Your task to perform on an android device: Open location settings Image 0: 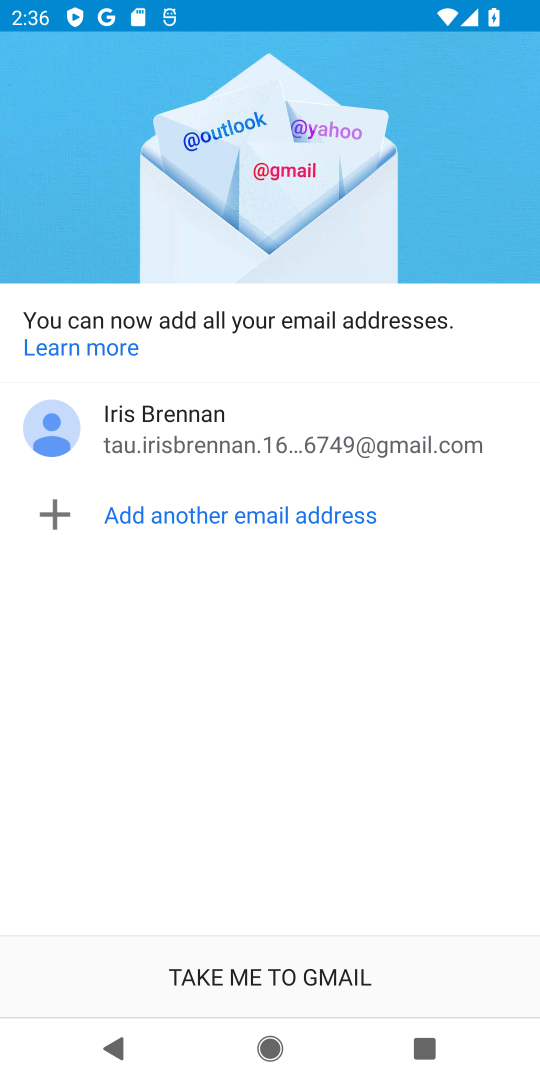
Step 0: press home button
Your task to perform on an android device: Open location settings Image 1: 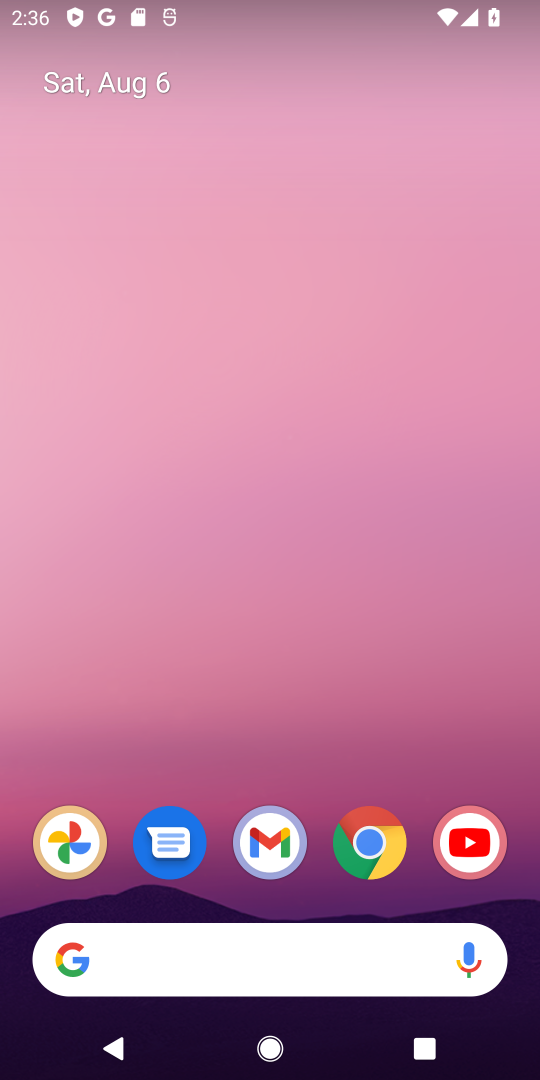
Step 1: drag from (495, 956) to (398, 39)
Your task to perform on an android device: Open location settings Image 2: 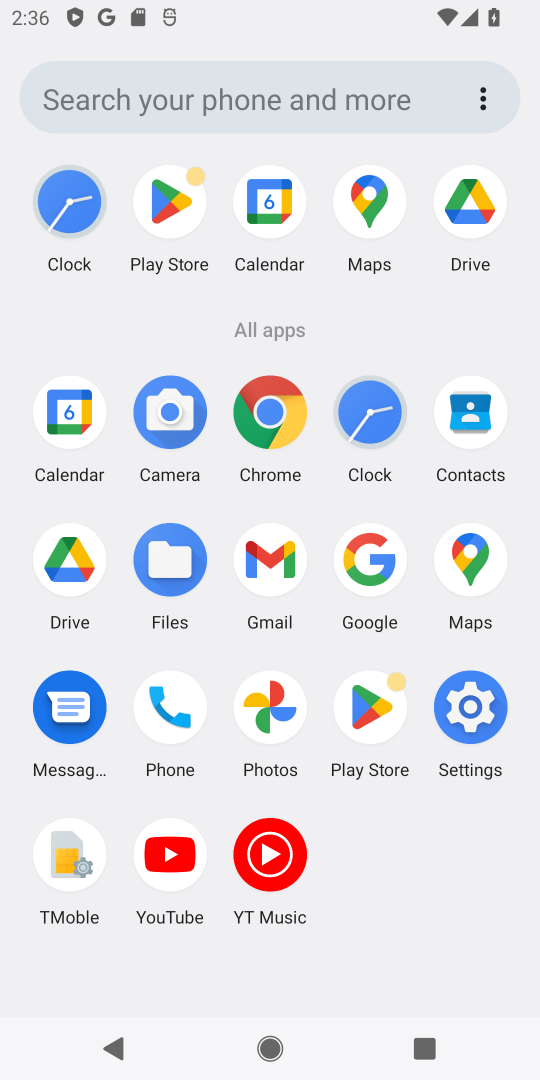
Step 2: click (473, 699)
Your task to perform on an android device: Open location settings Image 3: 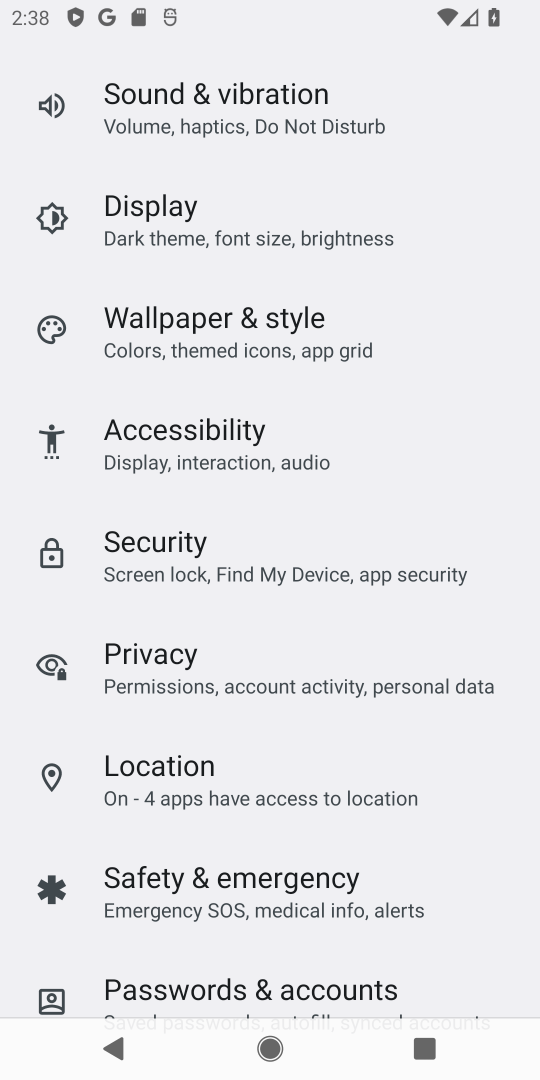
Step 3: click (150, 763)
Your task to perform on an android device: Open location settings Image 4: 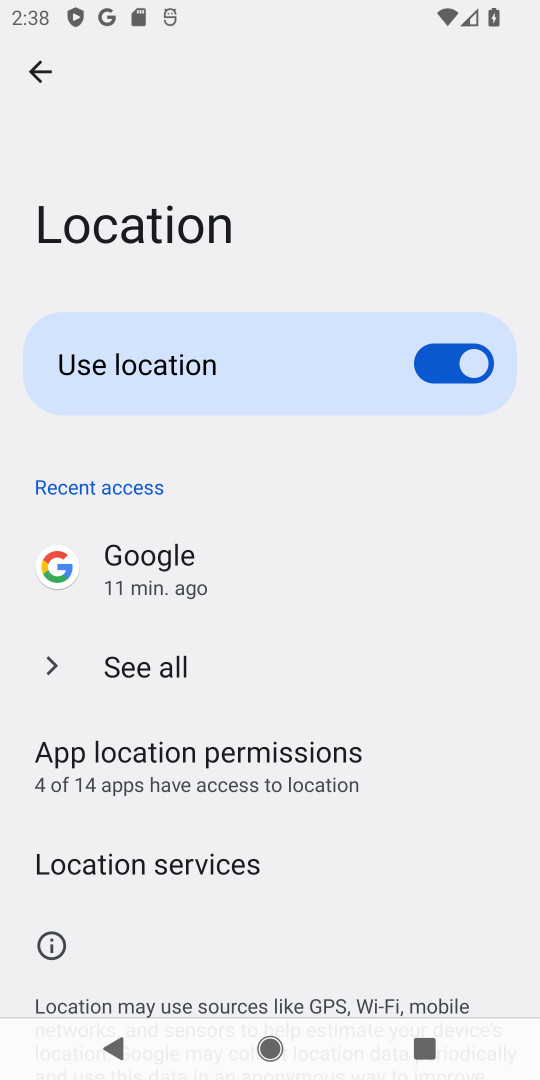
Step 4: task complete